Your task to perform on an android device: open app "Spotify: Music and Podcasts" (install if not already installed) and go to login screen Image 0: 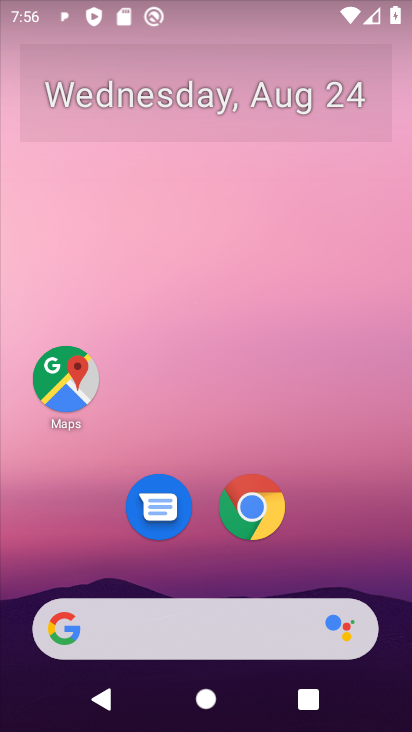
Step 0: press home button
Your task to perform on an android device: open app "Spotify: Music and Podcasts" (install if not already installed) and go to login screen Image 1: 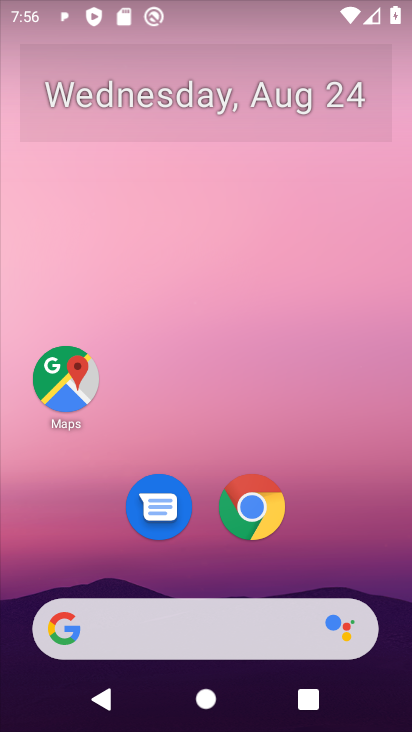
Step 1: drag from (364, 489) to (372, 72)
Your task to perform on an android device: open app "Spotify: Music and Podcasts" (install if not already installed) and go to login screen Image 2: 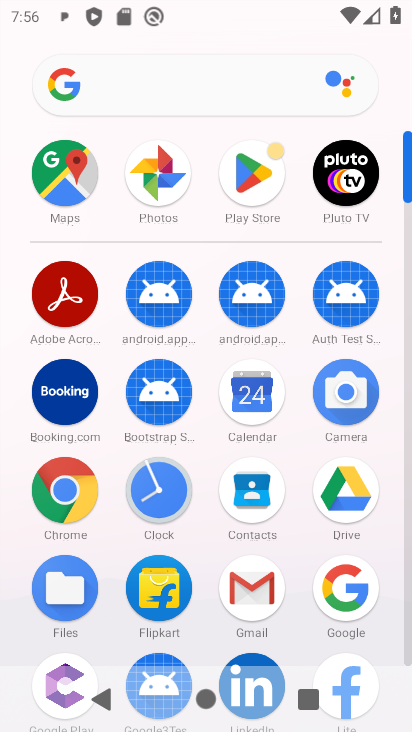
Step 2: click (250, 185)
Your task to perform on an android device: open app "Spotify: Music and Podcasts" (install if not already installed) and go to login screen Image 3: 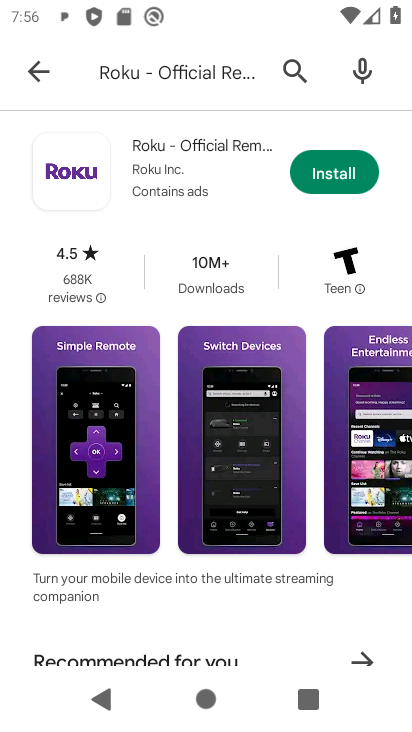
Step 3: press back button
Your task to perform on an android device: open app "Spotify: Music and Podcasts" (install if not already installed) and go to login screen Image 4: 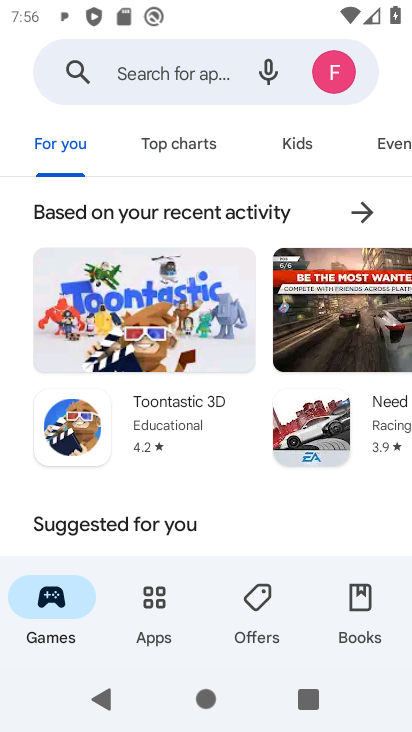
Step 4: click (134, 69)
Your task to perform on an android device: open app "Spotify: Music and Podcasts" (install if not already installed) and go to login screen Image 5: 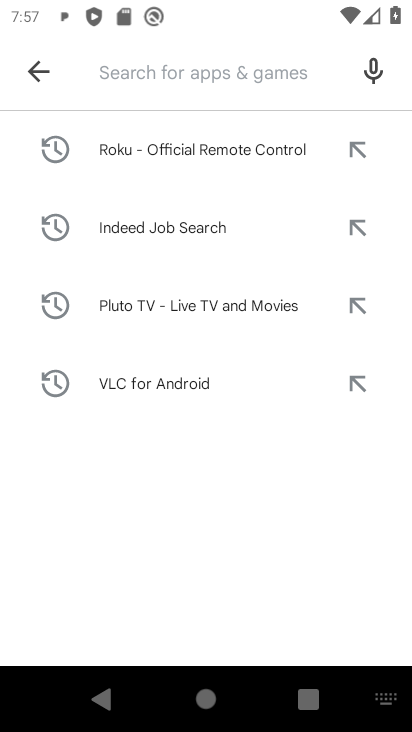
Step 5: type "Spotify: Music and Podcasts"
Your task to perform on an android device: open app "Spotify: Music and Podcasts" (install if not already installed) and go to login screen Image 6: 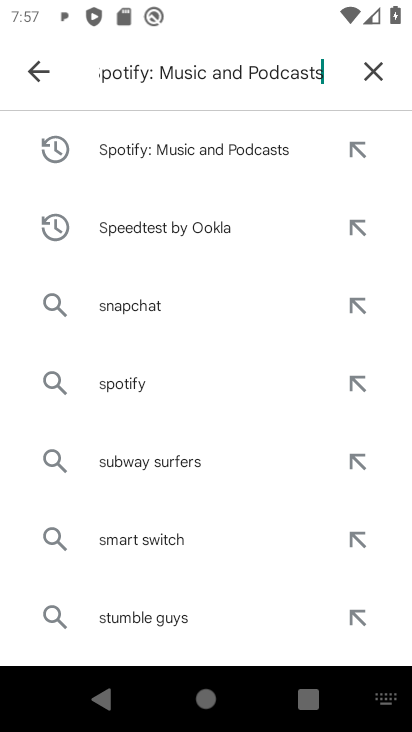
Step 6: press enter
Your task to perform on an android device: open app "Spotify: Music and Podcasts" (install if not already installed) and go to login screen Image 7: 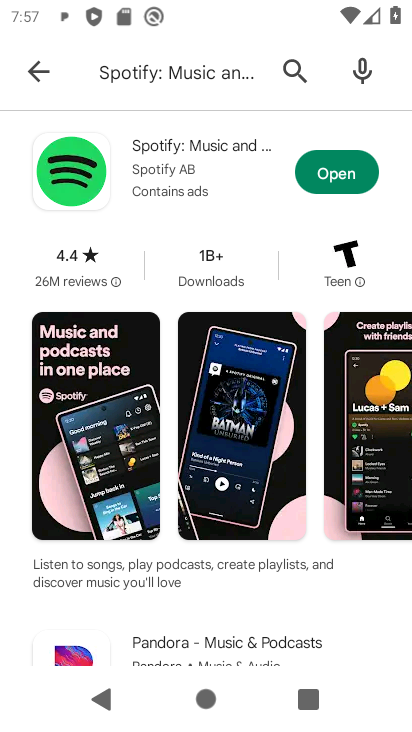
Step 7: click (340, 175)
Your task to perform on an android device: open app "Spotify: Music and Podcasts" (install if not already installed) and go to login screen Image 8: 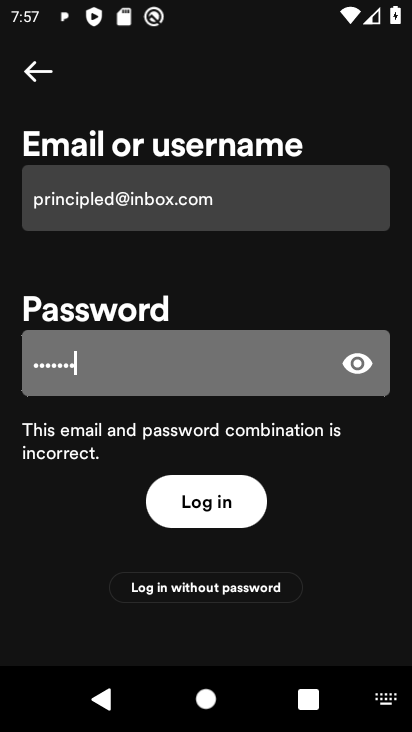
Step 8: task complete